Your task to perform on an android device: turn vacation reply on in the gmail app Image 0: 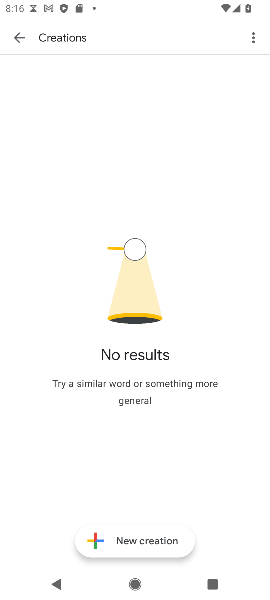
Step 0: press home button
Your task to perform on an android device: turn vacation reply on in the gmail app Image 1: 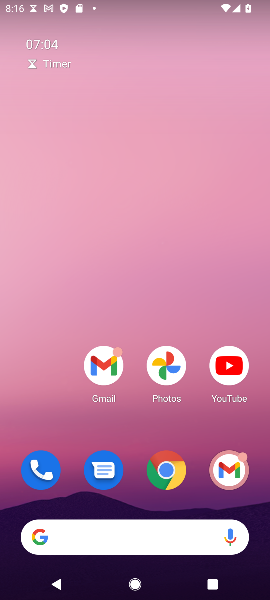
Step 1: click (120, 130)
Your task to perform on an android device: turn vacation reply on in the gmail app Image 2: 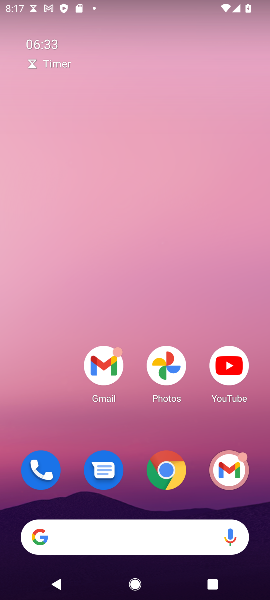
Step 2: drag from (120, 476) to (142, 29)
Your task to perform on an android device: turn vacation reply on in the gmail app Image 3: 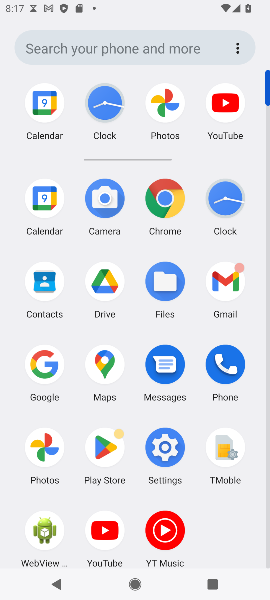
Step 3: click (228, 291)
Your task to perform on an android device: turn vacation reply on in the gmail app Image 4: 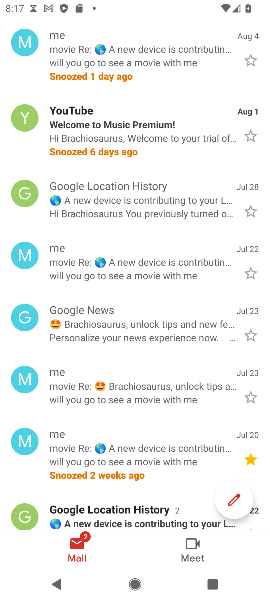
Step 4: drag from (72, 87) to (60, 569)
Your task to perform on an android device: turn vacation reply on in the gmail app Image 5: 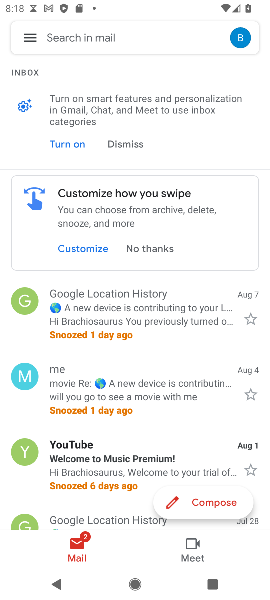
Step 5: click (29, 37)
Your task to perform on an android device: turn vacation reply on in the gmail app Image 6: 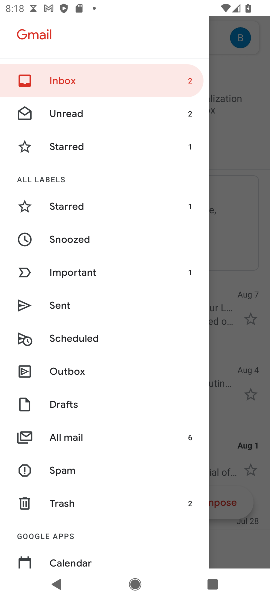
Step 6: drag from (67, 516) to (112, 133)
Your task to perform on an android device: turn vacation reply on in the gmail app Image 7: 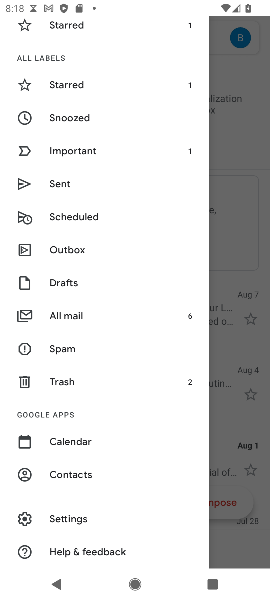
Step 7: click (66, 513)
Your task to perform on an android device: turn vacation reply on in the gmail app Image 8: 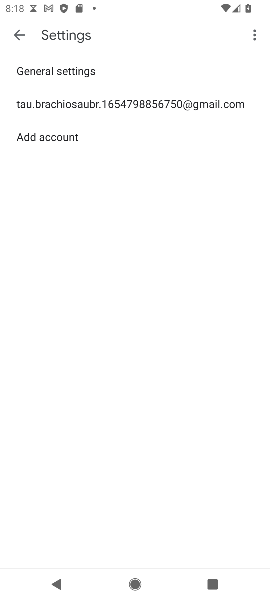
Step 8: click (106, 103)
Your task to perform on an android device: turn vacation reply on in the gmail app Image 9: 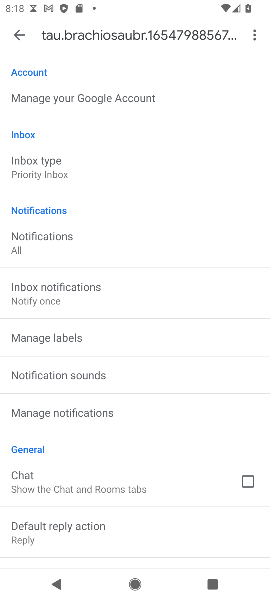
Step 9: drag from (173, 482) to (220, 17)
Your task to perform on an android device: turn vacation reply on in the gmail app Image 10: 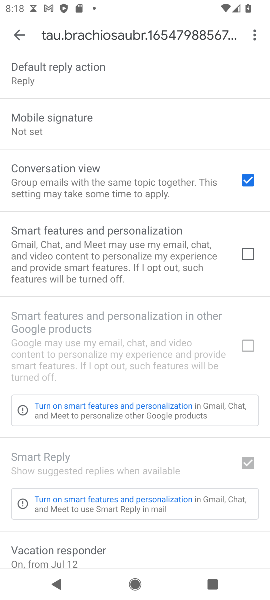
Step 10: drag from (121, 484) to (149, 209)
Your task to perform on an android device: turn vacation reply on in the gmail app Image 11: 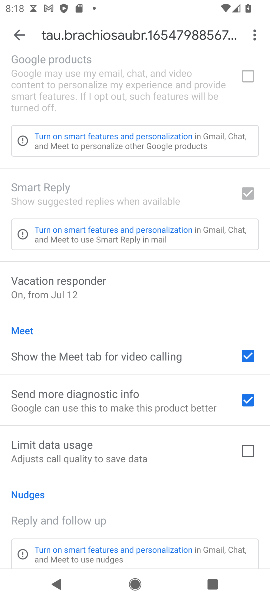
Step 11: click (56, 282)
Your task to perform on an android device: turn vacation reply on in the gmail app Image 12: 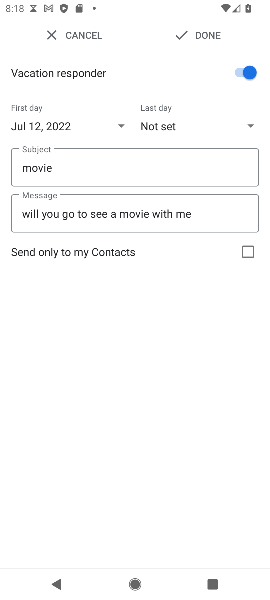
Step 12: task complete